Your task to perform on an android device: Add macbook pro 15 inch to the cart on target, then select checkout. Image 0: 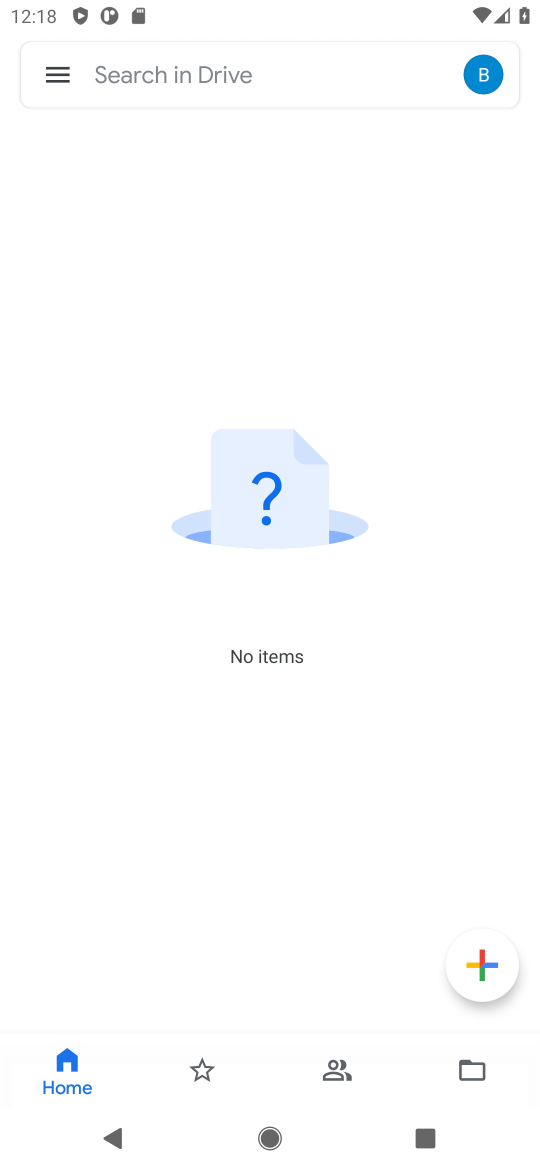
Step 0: press home button
Your task to perform on an android device: Add macbook pro 15 inch to the cart on target, then select checkout. Image 1: 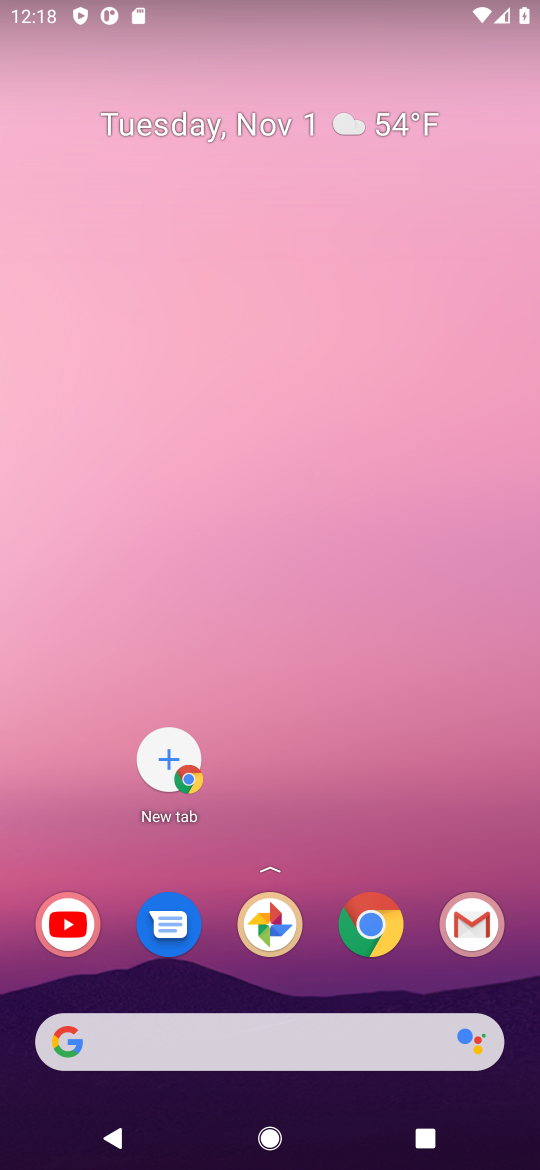
Step 1: click (386, 936)
Your task to perform on an android device: Add macbook pro 15 inch to the cart on target, then select checkout. Image 2: 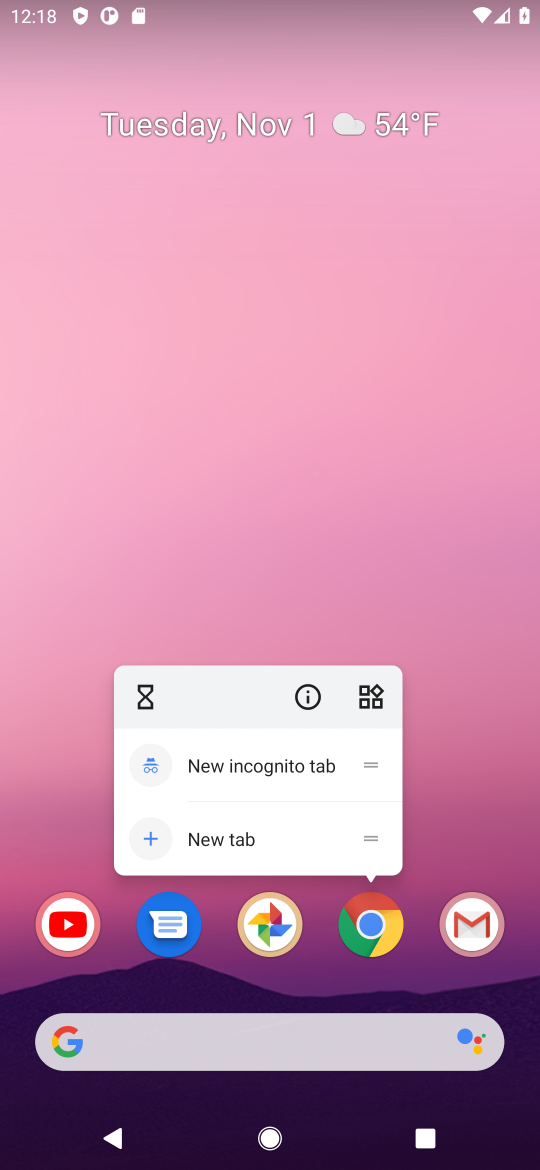
Step 2: click (386, 936)
Your task to perform on an android device: Add macbook pro 15 inch to the cart on target, then select checkout. Image 3: 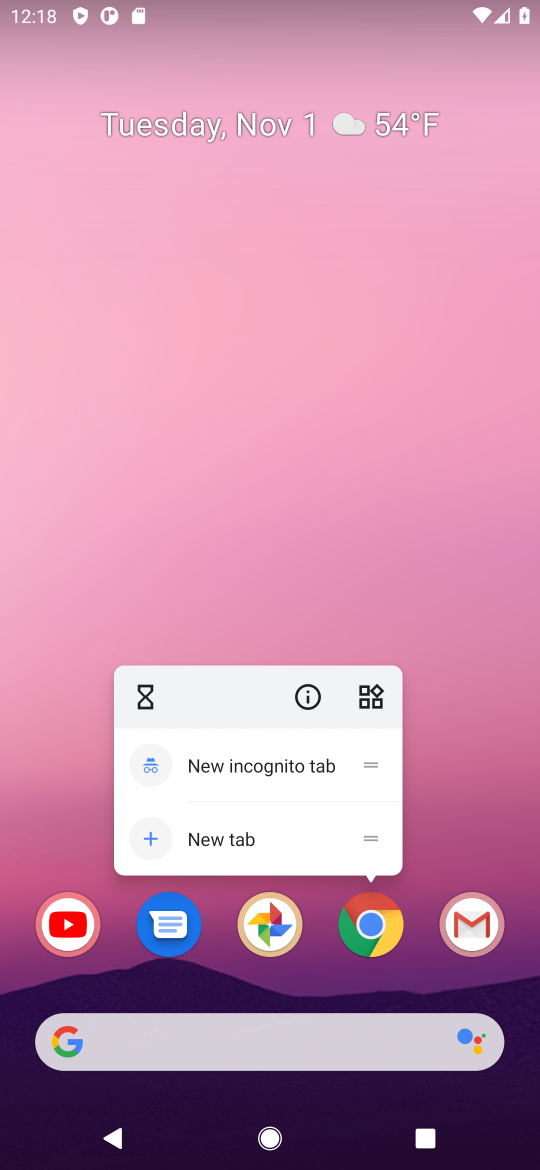
Step 3: click (386, 923)
Your task to perform on an android device: Add macbook pro 15 inch to the cart on target, then select checkout. Image 4: 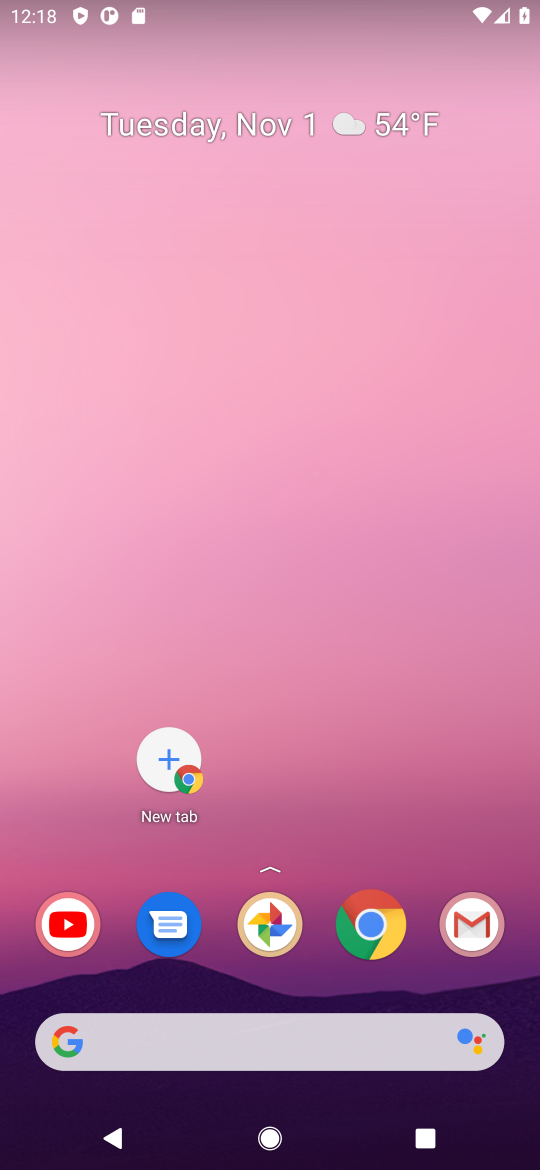
Step 4: click (386, 923)
Your task to perform on an android device: Add macbook pro 15 inch to the cart on target, then select checkout. Image 5: 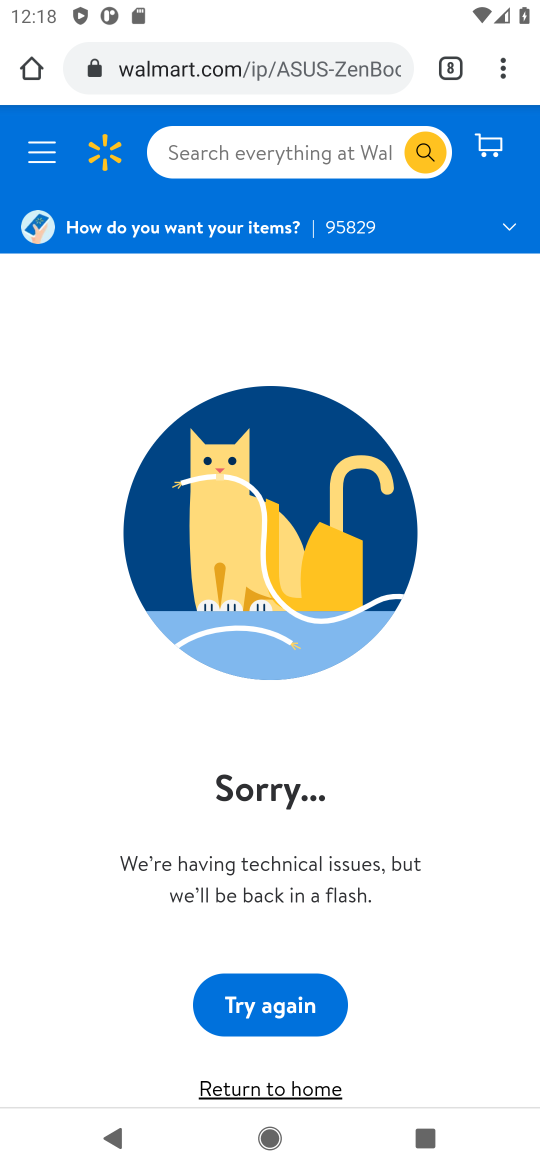
Step 5: click (223, 69)
Your task to perform on an android device: Add macbook pro 15 inch to the cart on target, then select checkout. Image 6: 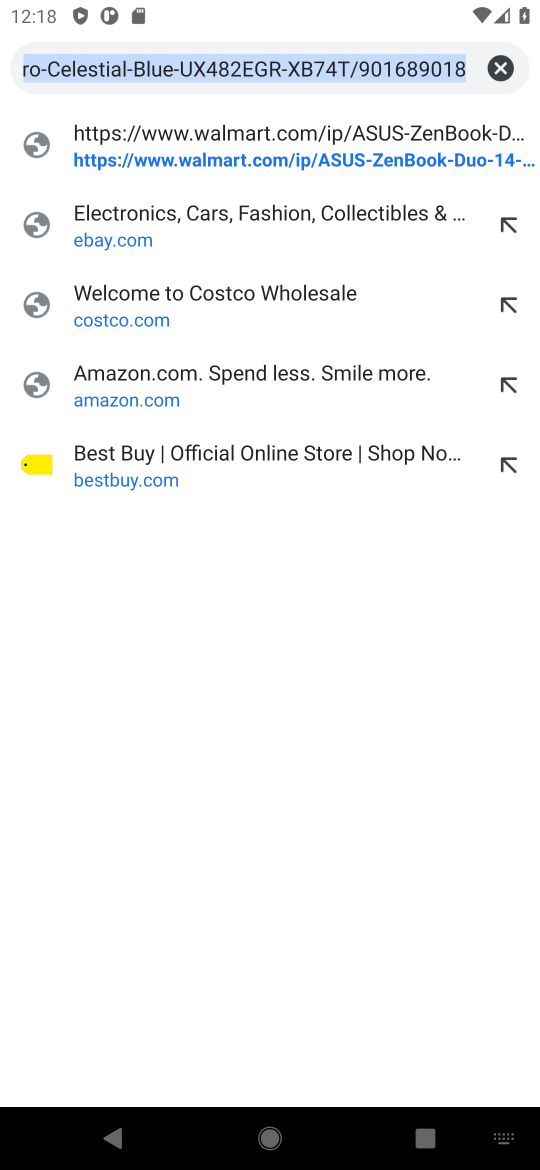
Step 6: click (498, 61)
Your task to perform on an android device: Add macbook pro 15 inch to the cart on target, then select checkout. Image 7: 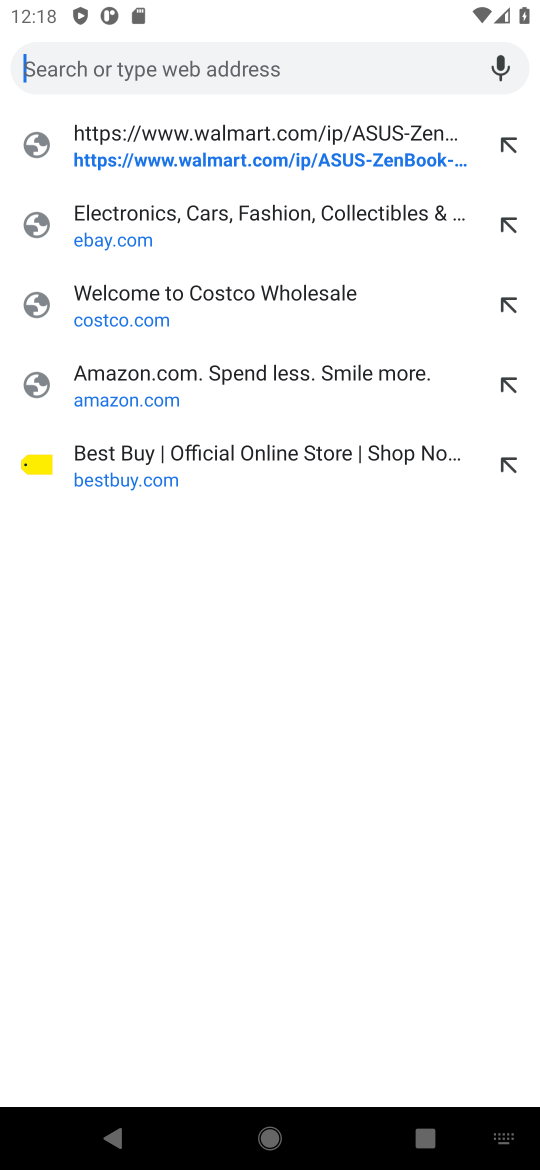
Step 7: type "target"
Your task to perform on an android device: Add macbook pro 15 inch to the cart on target, then select checkout. Image 8: 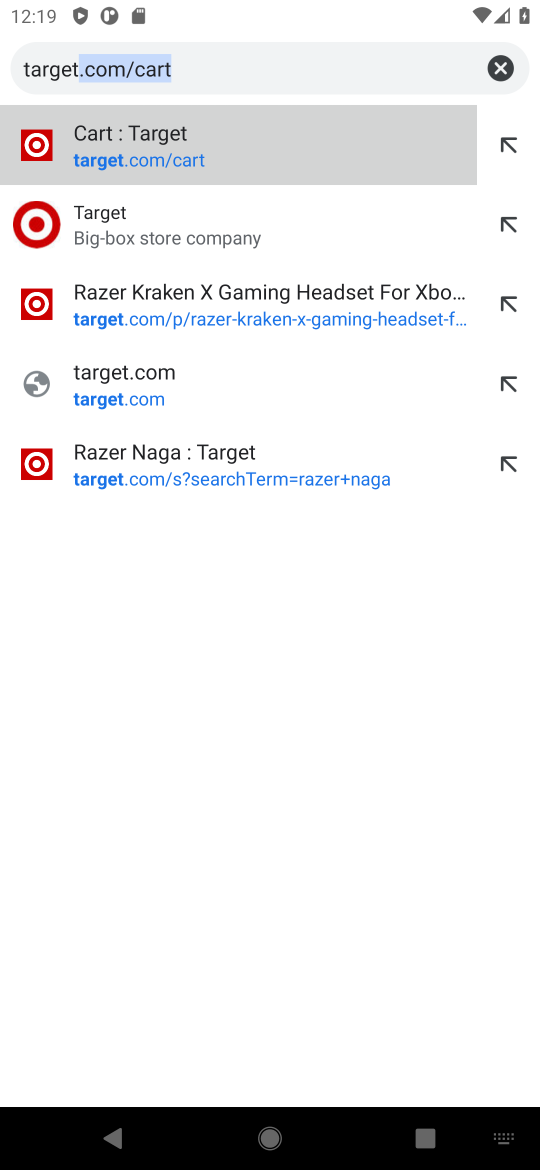
Step 8: click (117, 217)
Your task to perform on an android device: Add macbook pro 15 inch to the cart on target, then select checkout. Image 9: 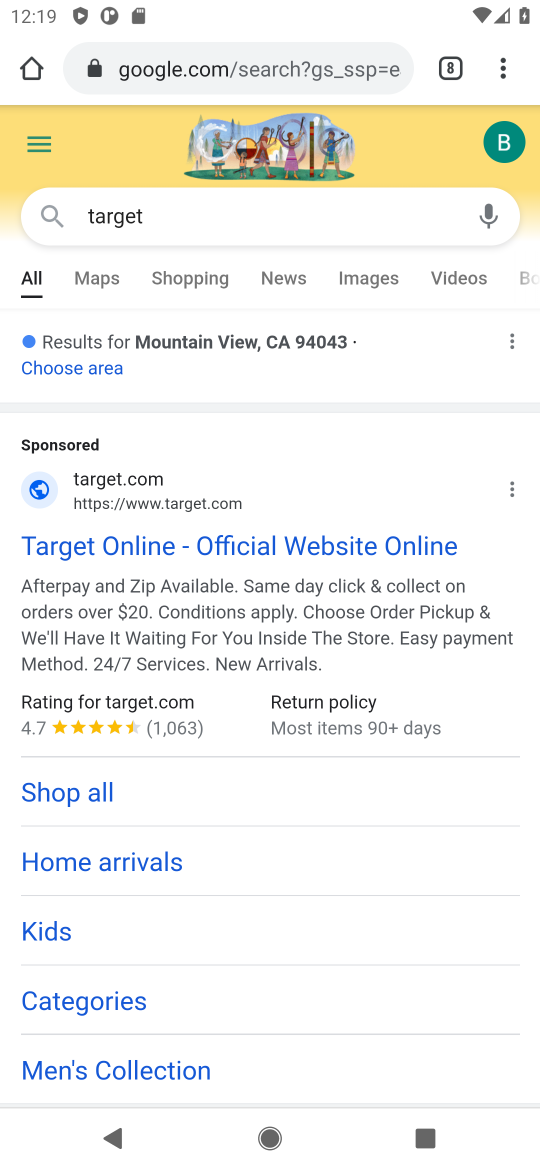
Step 9: drag from (160, 805) to (203, 254)
Your task to perform on an android device: Add macbook pro 15 inch to the cart on target, then select checkout. Image 10: 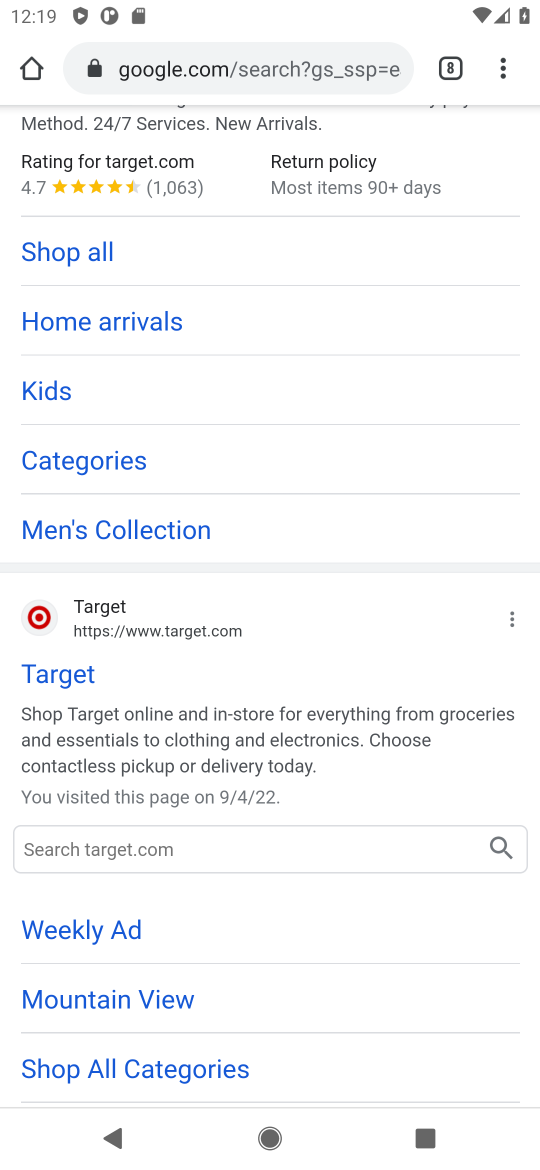
Step 10: click (63, 684)
Your task to perform on an android device: Add macbook pro 15 inch to the cart on target, then select checkout. Image 11: 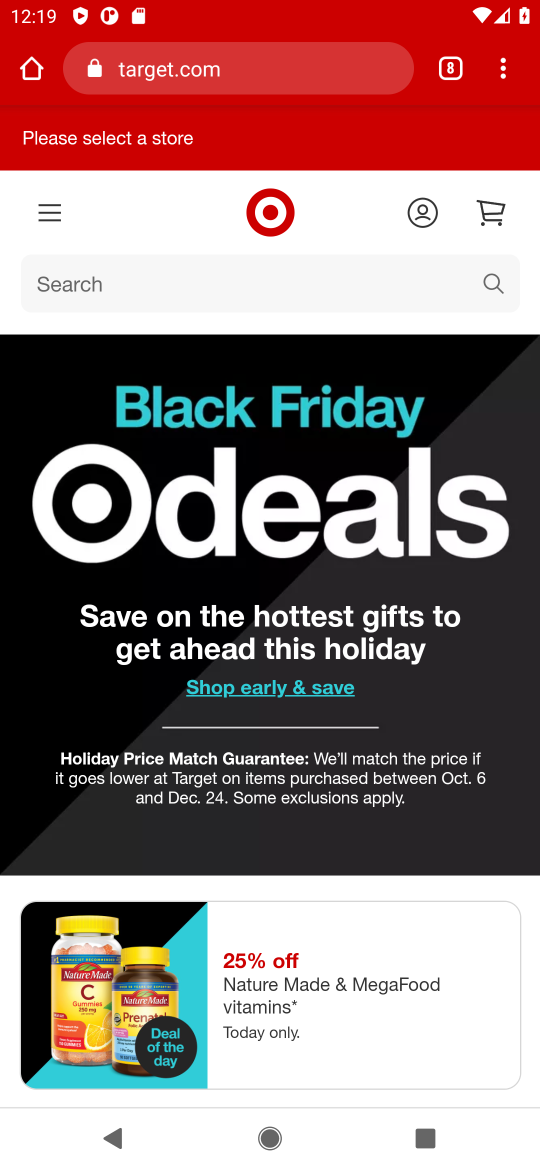
Step 11: click (488, 274)
Your task to perform on an android device: Add macbook pro 15 inch to the cart on target, then select checkout. Image 12: 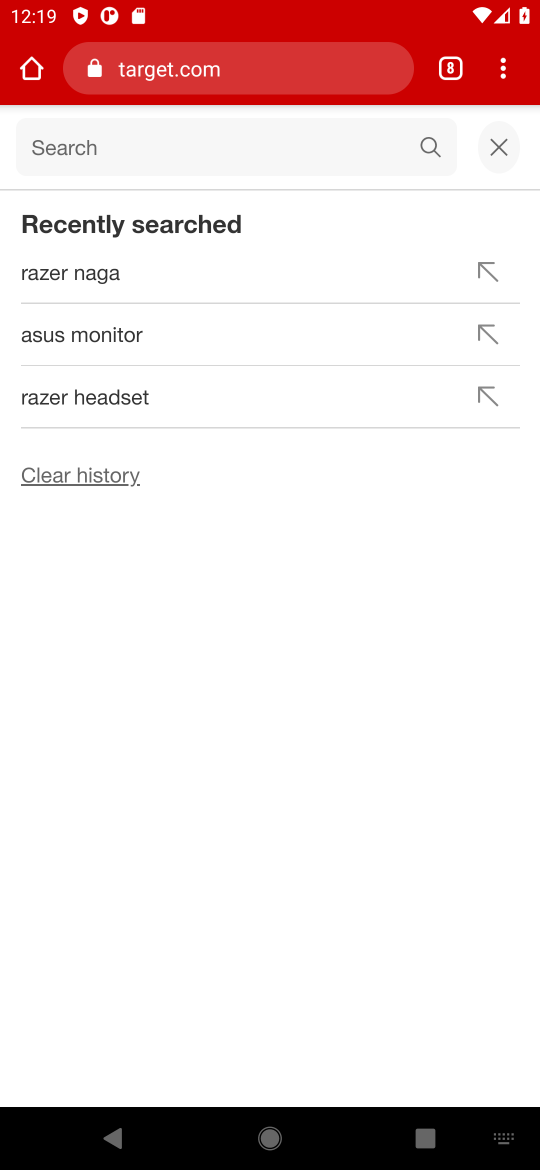
Step 12: type "macbook pro 15 inch"
Your task to perform on an android device: Add macbook pro 15 inch to the cart on target, then select checkout. Image 13: 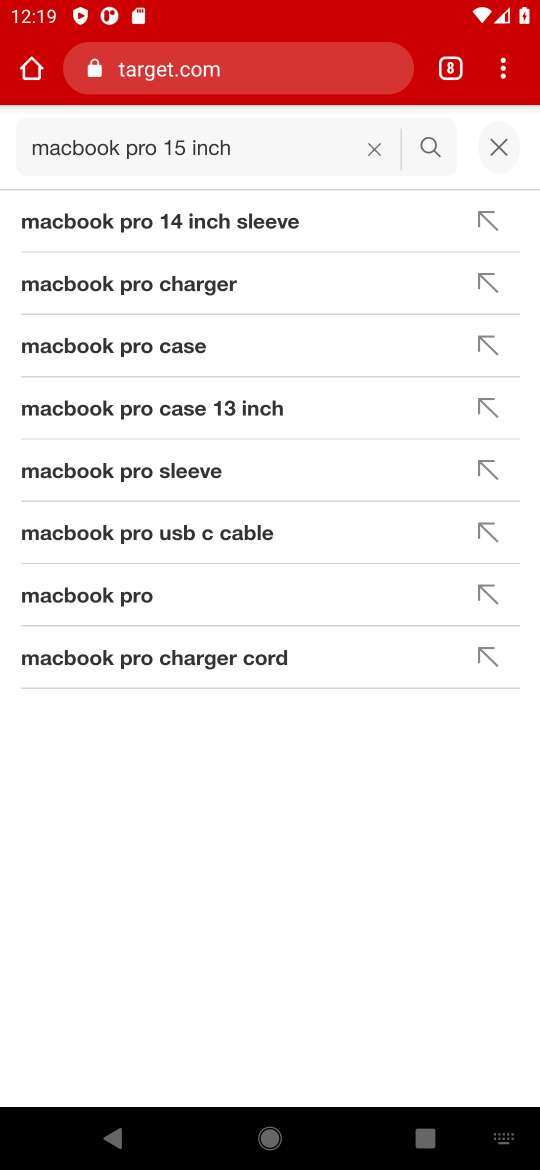
Step 13: click (224, 216)
Your task to perform on an android device: Add macbook pro 15 inch to the cart on target, then select checkout. Image 14: 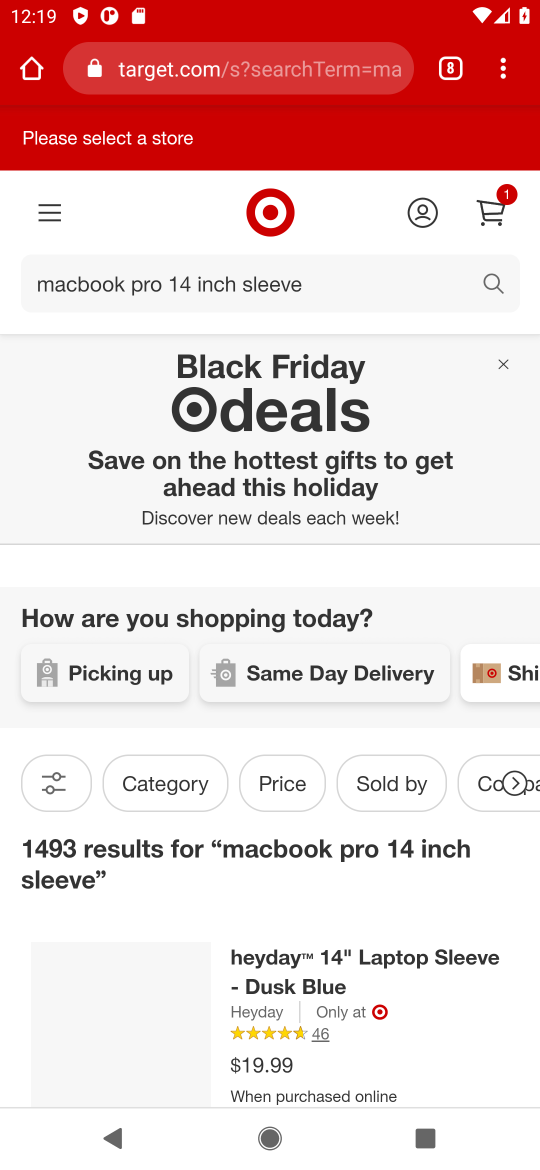
Step 14: drag from (217, 955) to (337, 147)
Your task to perform on an android device: Add macbook pro 15 inch to the cart on target, then select checkout. Image 15: 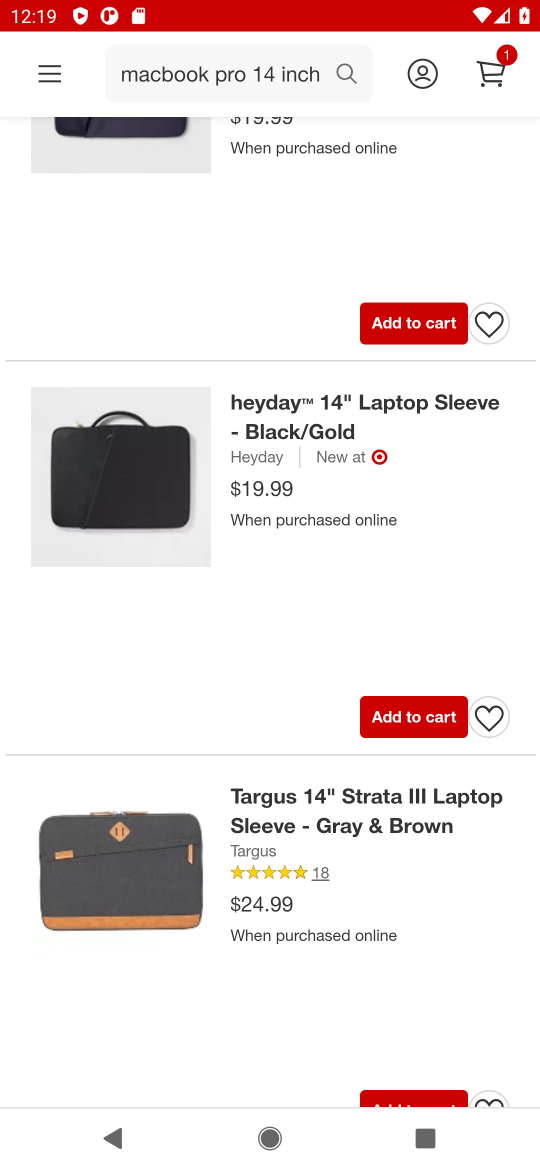
Step 15: drag from (288, 966) to (345, 300)
Your task to perform on an android device: Add macbook pro 15 inch to the cart on target, then select checkout. Image 16: 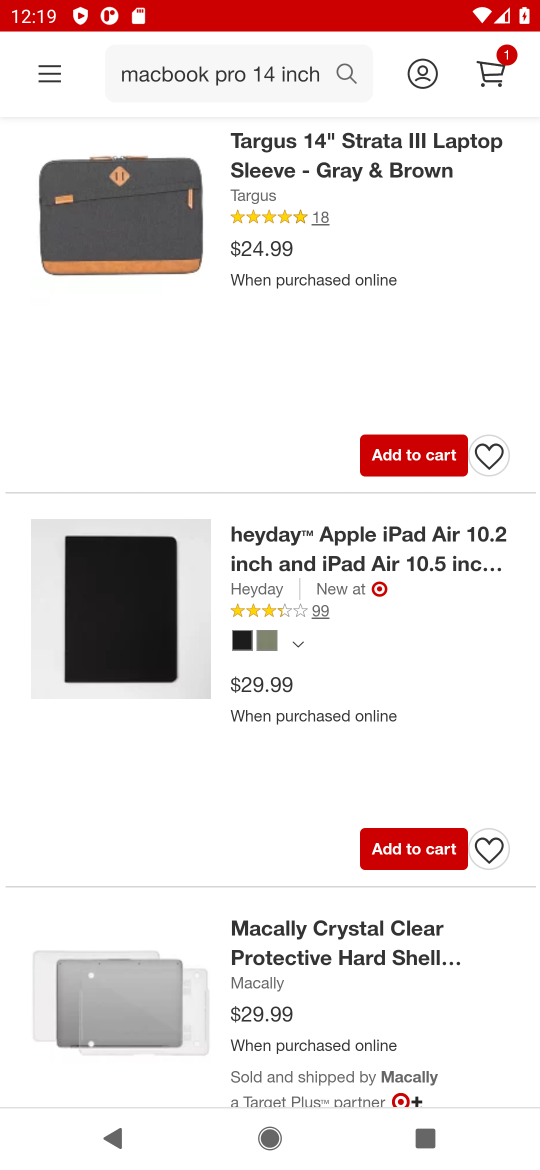
Step 16: drag from (298, 949) to (356, 330)
Your task to perform on an android device: Add macbook pro 15 inch to the cart on target, then select checkout. Image 17: 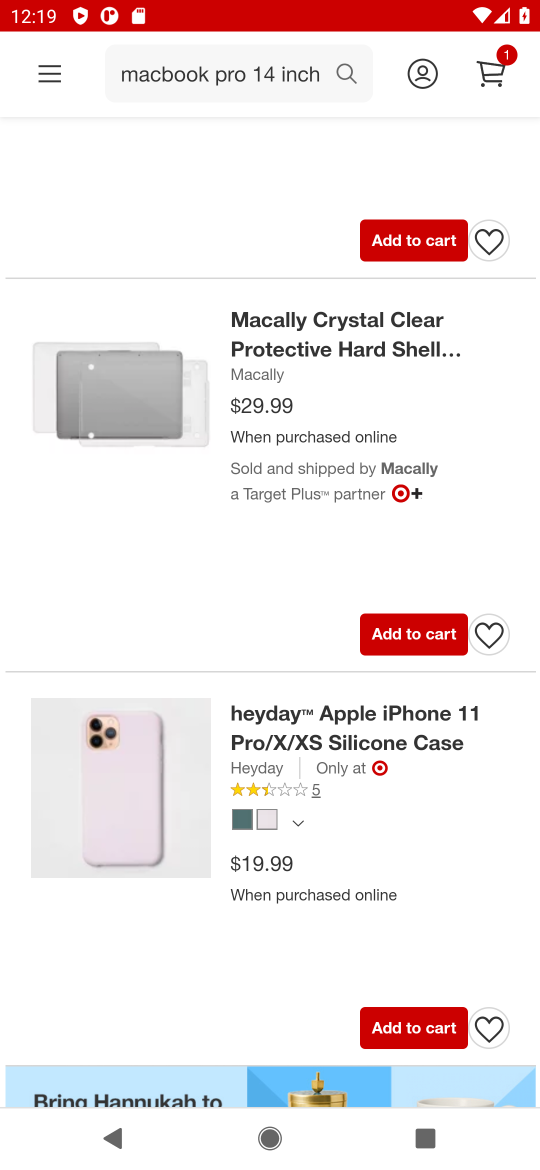
Step 17: drag from (273, 791) to (322, 479)
Your task to perform on an android device: Add macbook pro 15 inch to the cart on target, then select checkout. Image 18: 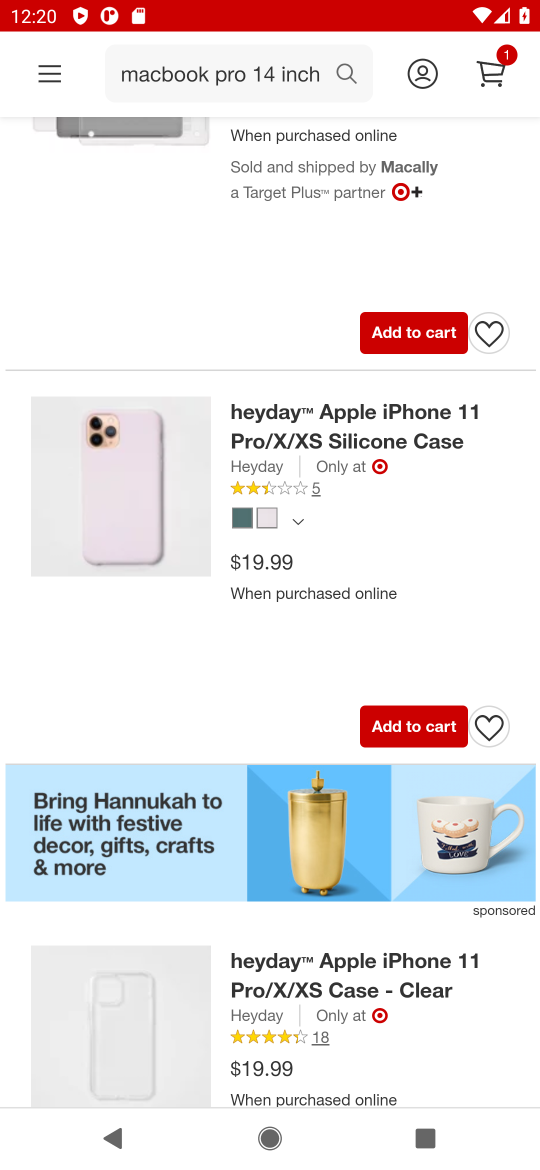
Step 18: drag from (322, 477) to (278, 1010)
Your task to perform on an android device: Add macbook pro 15 inch to the cart on target, then select checkout. Image 19: 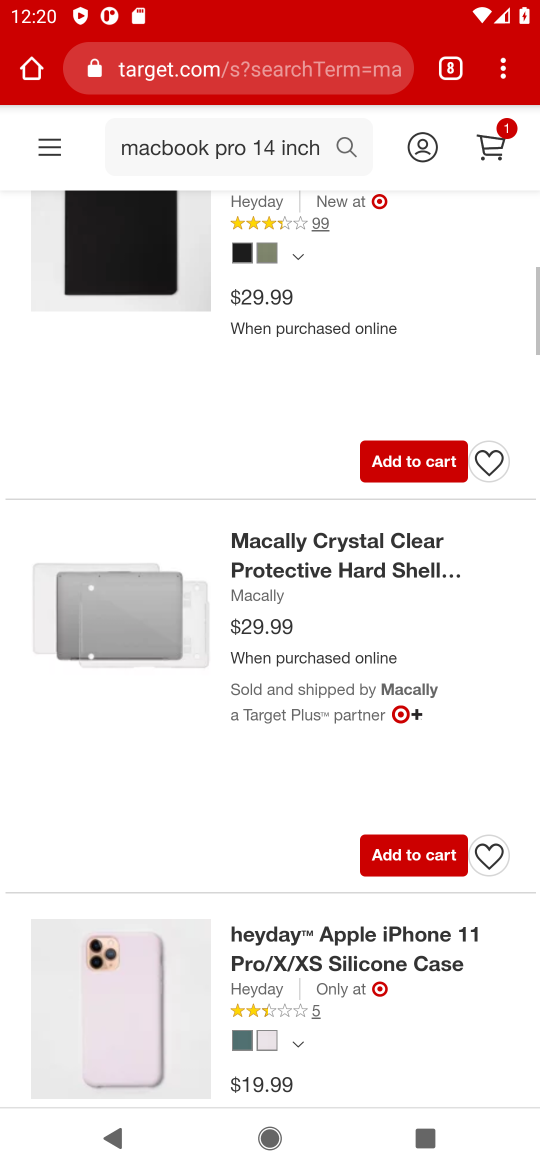
Step 19: drag from (155, 475) to (96, 951)
Your task to perform on an android device: Add macbook pro 15 inch to the cart on target, then select checkout. Image 20: 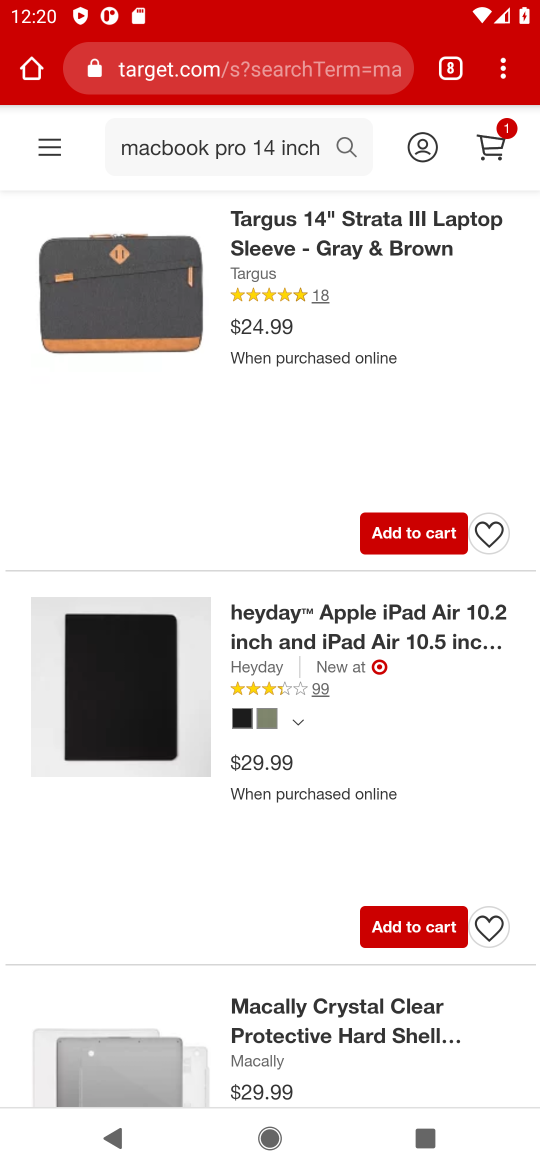
Step 20: drag from (135, 489) to (131, 891)
Your task to perform on an android device: Add macbook pro 15 inch to the cart on target, then select checkout. Image 21: 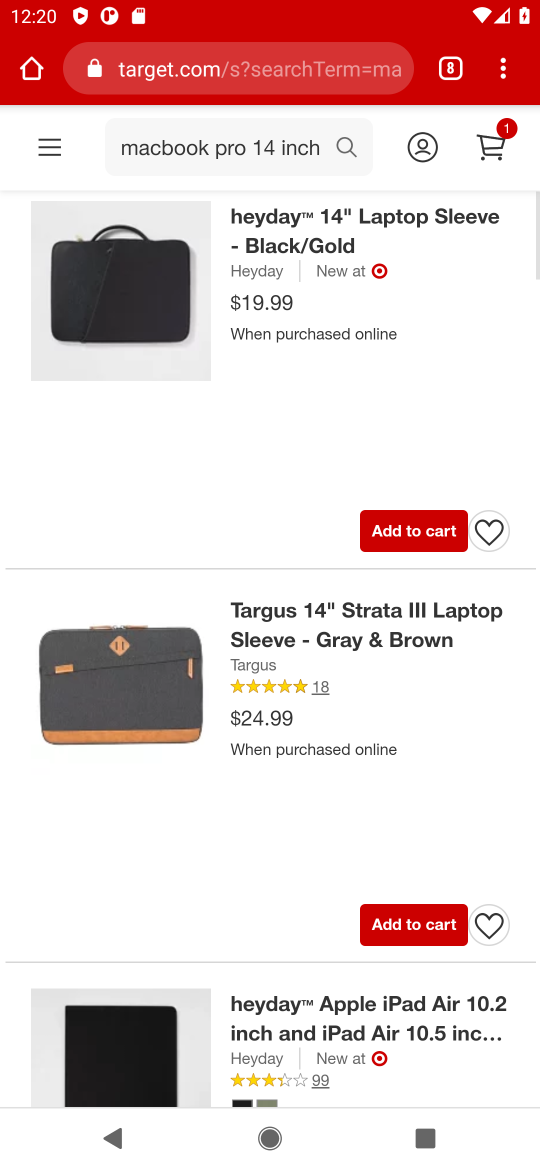
Step 21: drag from (155, 457) to (136, 936)
Your task to perform on an android device: Add macbook pro 15 inch to the cart on target, then select checkout. Image 22: 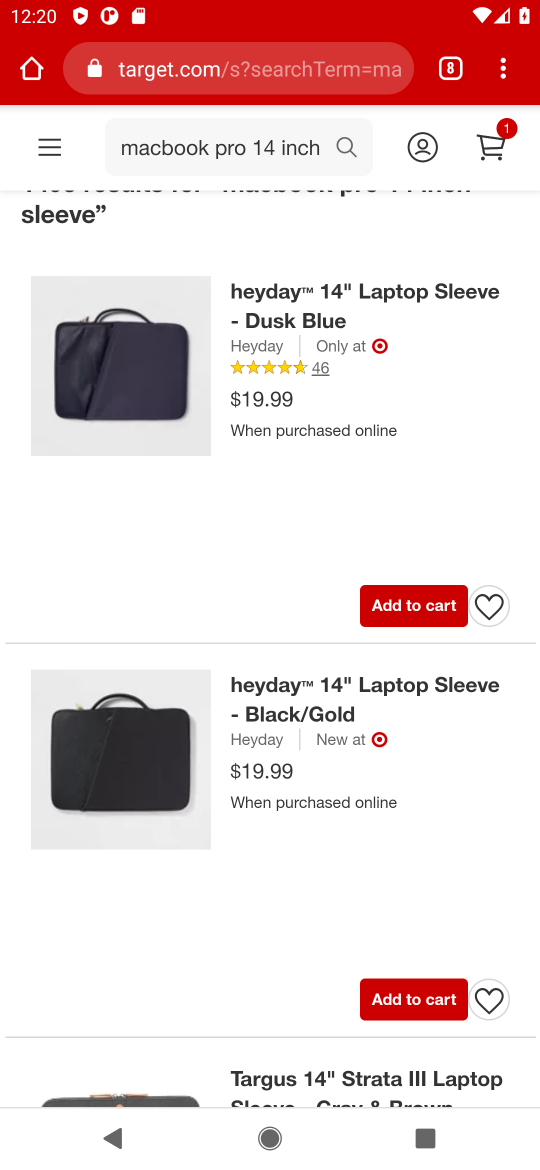
Step 22: drag from (287, 293) to (237, 170)
Your task to perform on an android device: Add macbook pro 15 inch to the cart on target, then select checkout. Image 23: 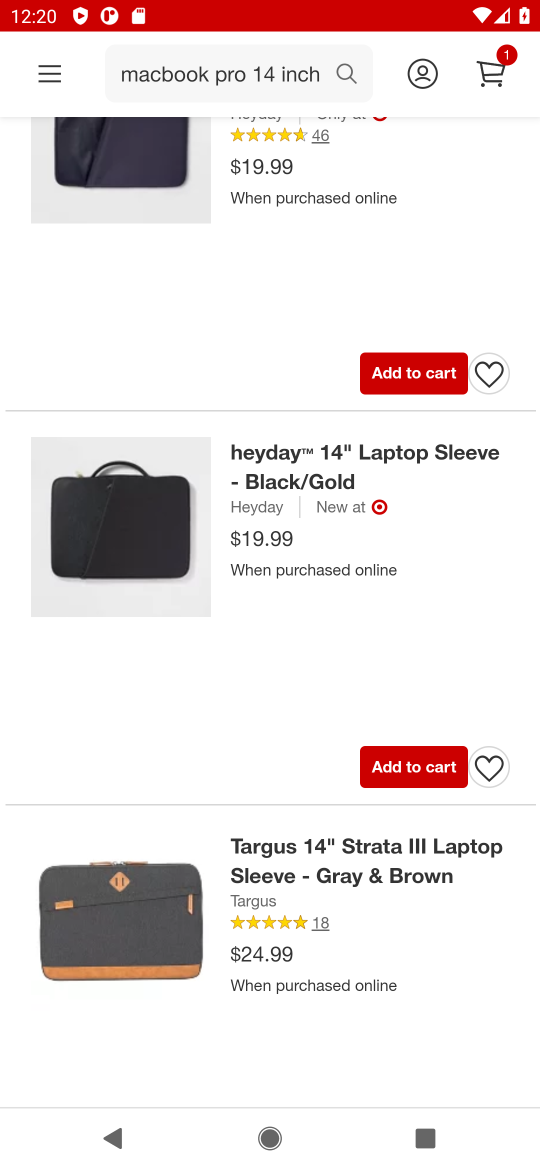
Step 23: click (132, 987)
Your task to perform on an android device: Add macbook pro 15 inch to the cart on target, then select checkout. Image 24: 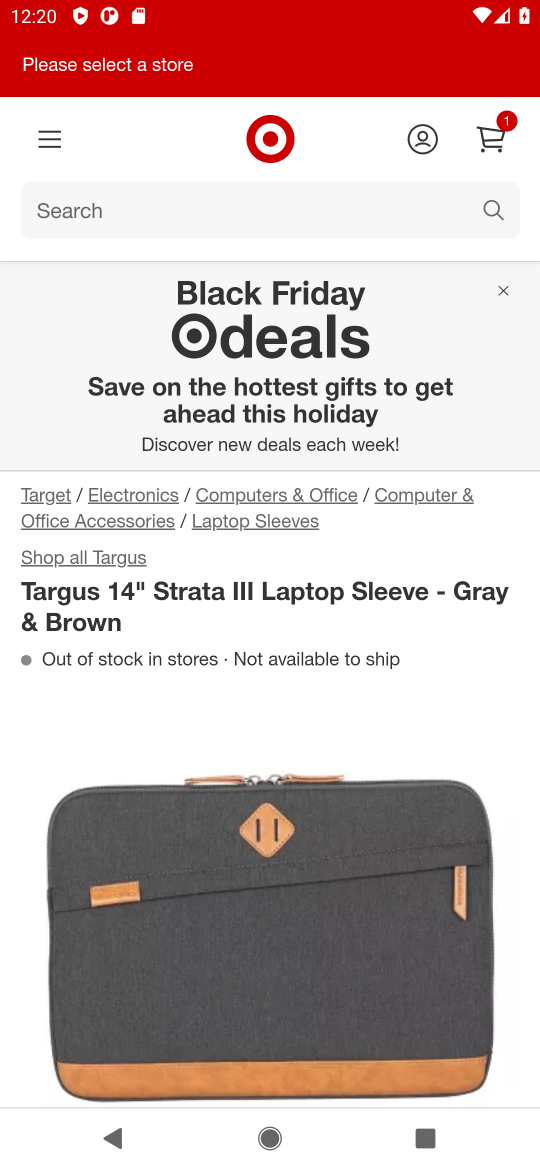
Step 24: drag from (251, 990) to (332, 515)
Your task to perform on an android device: Add macbook pro 15 inch to the cart on target, then select checkout. Image 25: 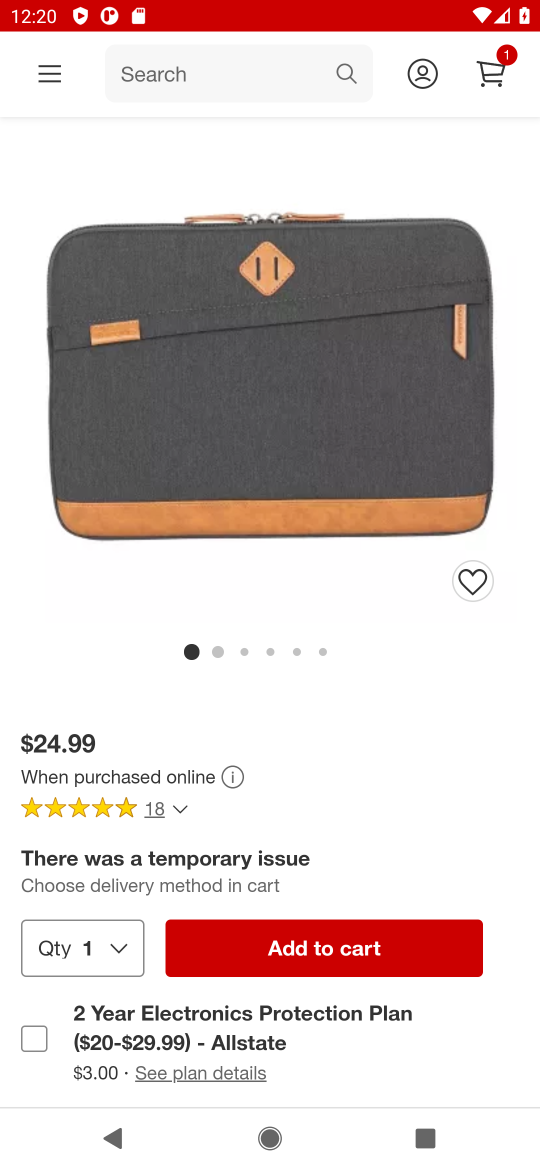
Step 25: click (330, 942)
Your task to perform on an android device: Add macbook pro 15 inch to the cart on target, then select checkout. Image 26: 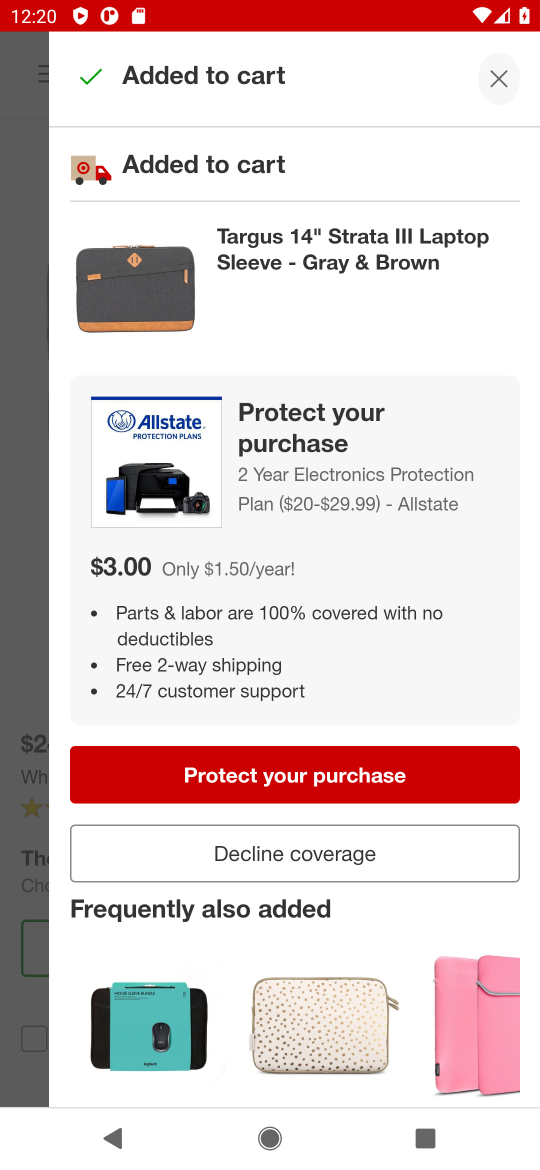
Step 26: click (384, 780)
Your task to perform on an android device: Add macbook pro 15 inch to the cart on target, then select checkout. Image 27: 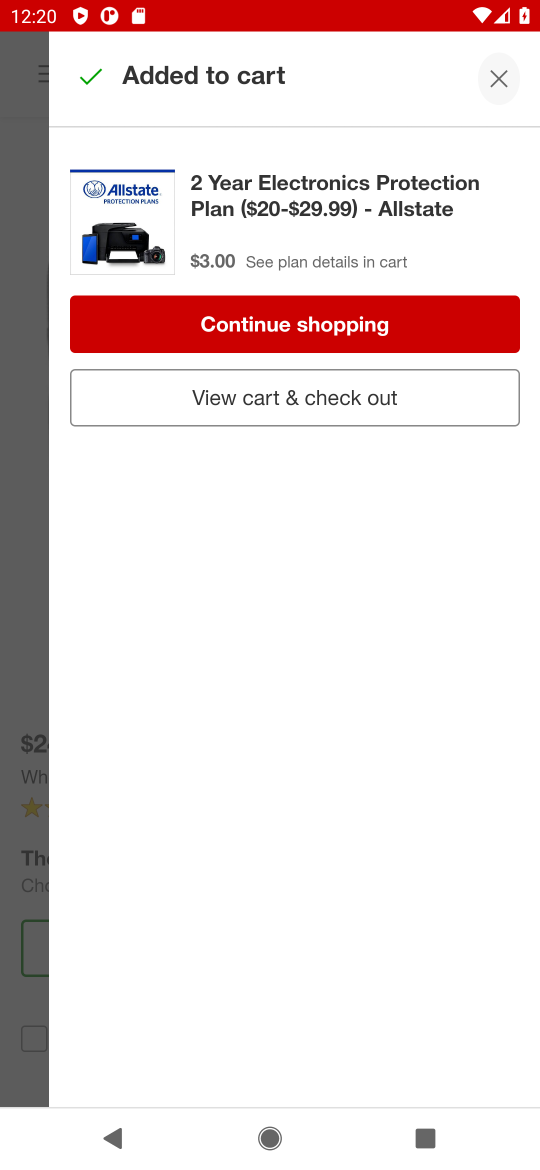
Step 27: click (244, 412)
Your task to perform on an android device: Add macbook pro 15 inch to the cart on target, then select checkout. Image 28: 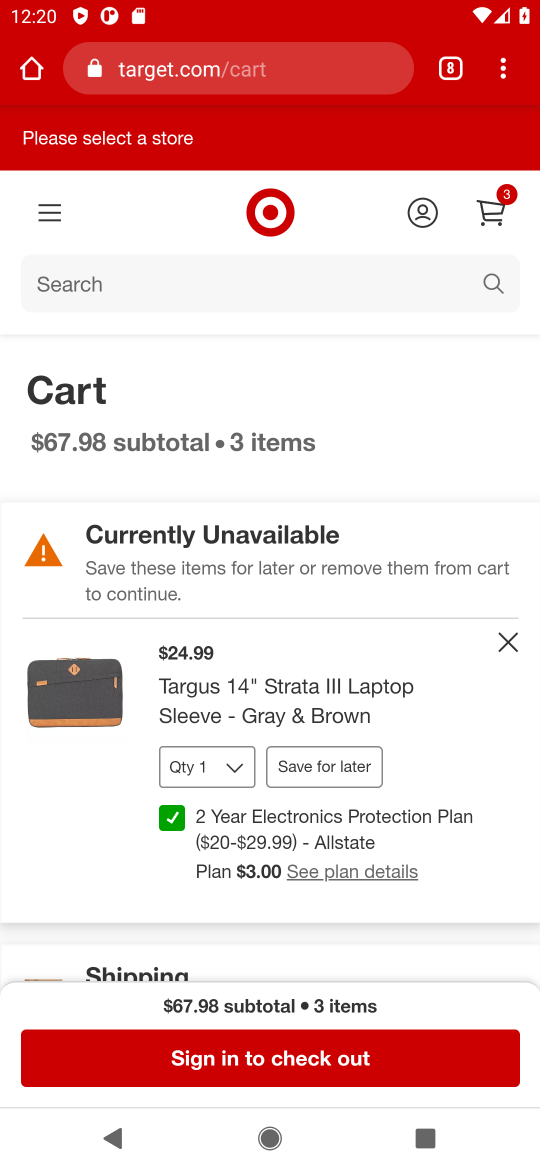
Step 28: drag from (494, 903) to (499, 618)
Your task to perform on an android device: Add macbook pro 15 inch to the cart on target, then select checkout. Image 29: 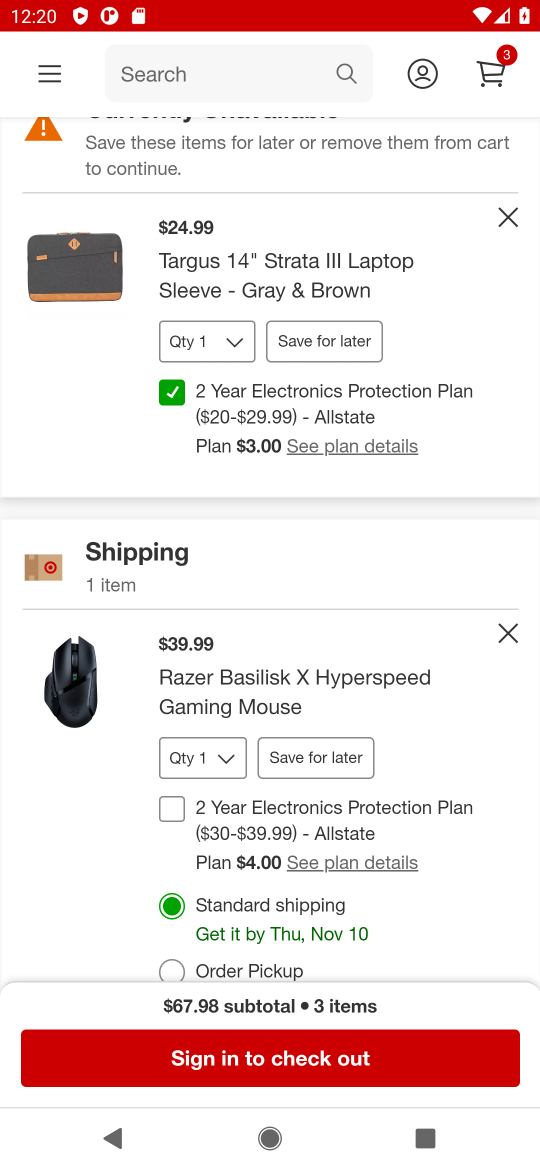
Step 29: click (362, 1051)
Your task to perform on an android device: Add macbook pro 15 inch to the cart on target, then select checkout. Image 30: 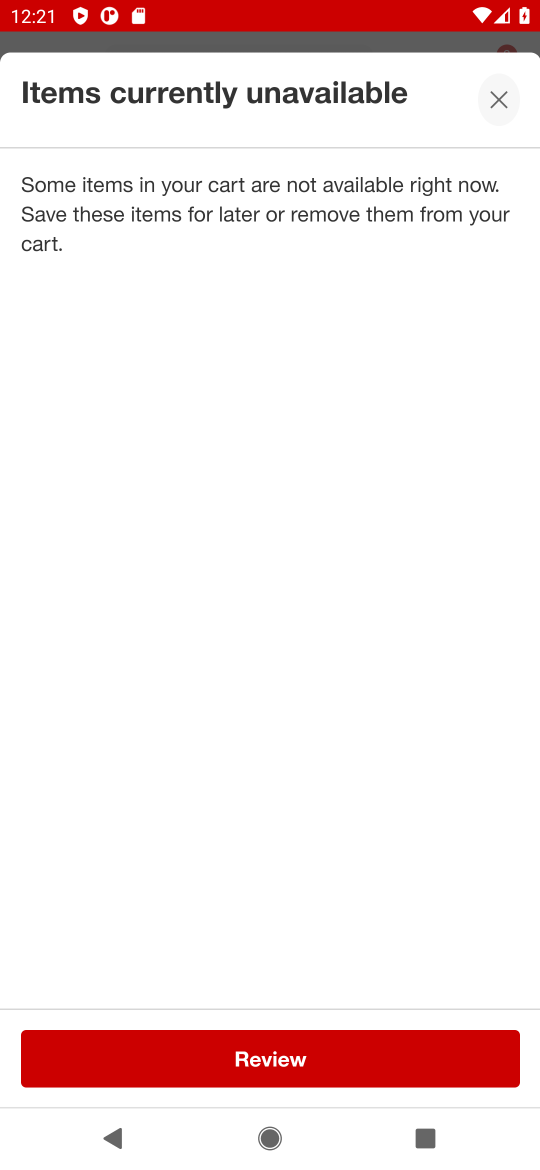
Step 30: click (241, 1066)
Your task to perform on an android device: Add macbook pro 15 inch to the cart on target, then select checkout. Image 31: 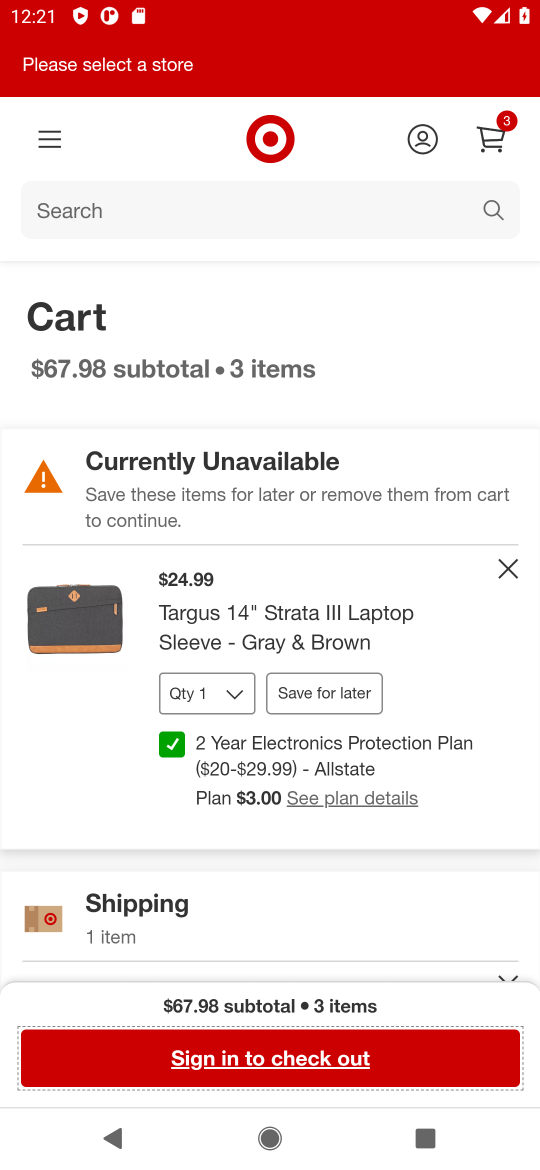
Step 31: task complete